Your task to perform on an android device: Open Android settings Image 0: 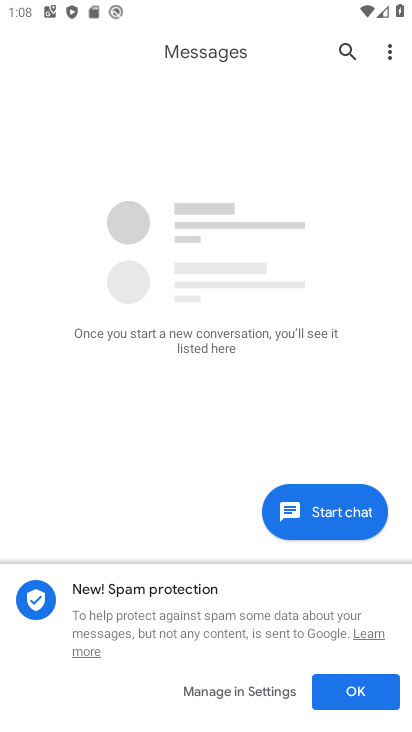
Step 0: press back button
Your task to perform on an android device: Open Android settings Image 1: 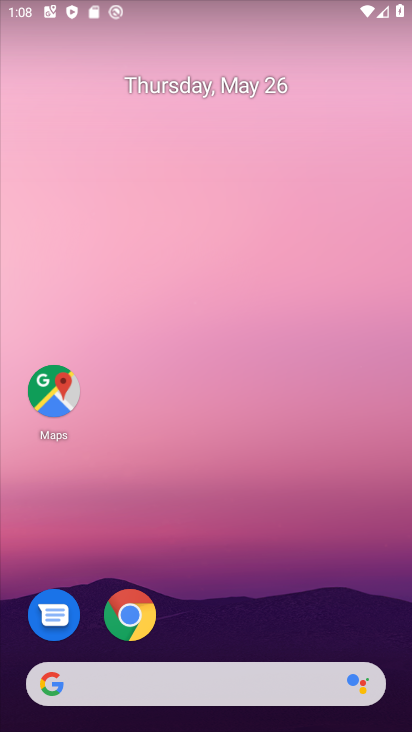
Step 1: drag from (97, 9) to (203, 5)
Your task to perform on an android device: Open Android settings Image 2: 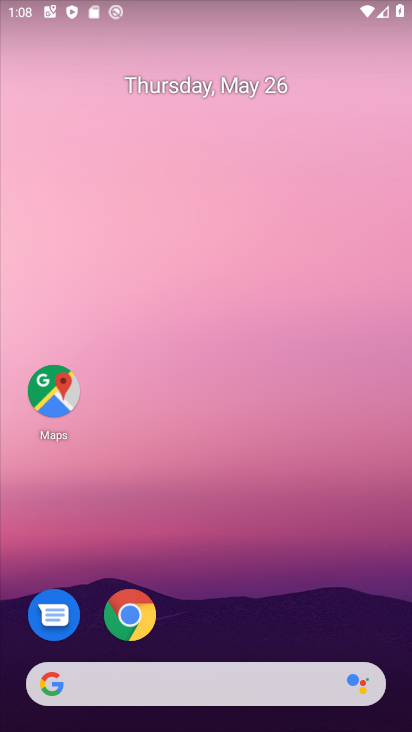
Step 2: drag from (221, 531) to (284, 106)
Your task to perform on an android device: Open Android settings Image 3: 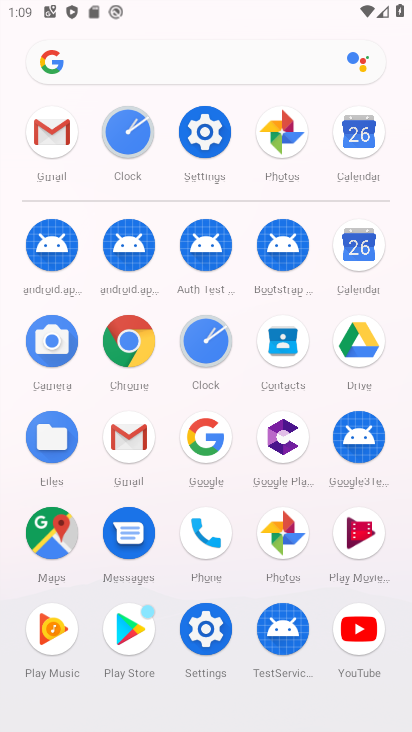
Step 3: click (197, 617)
Your task to perform on an android device: Open Android settings Image 4: 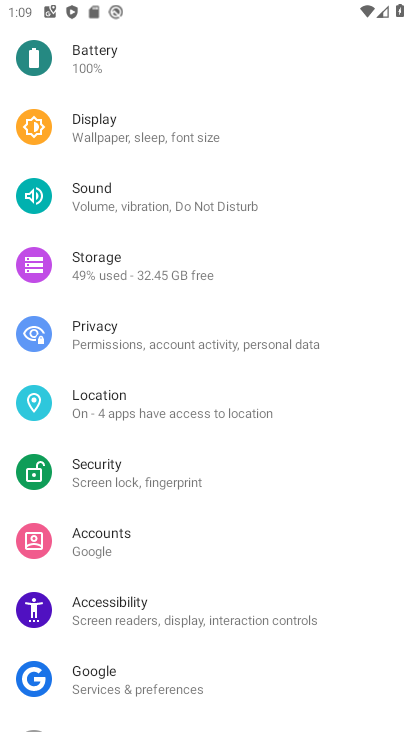
Step 4: drag from (114, 680) to (177, 74)
Your task to perform on an android device: Open Android settings Image 5: 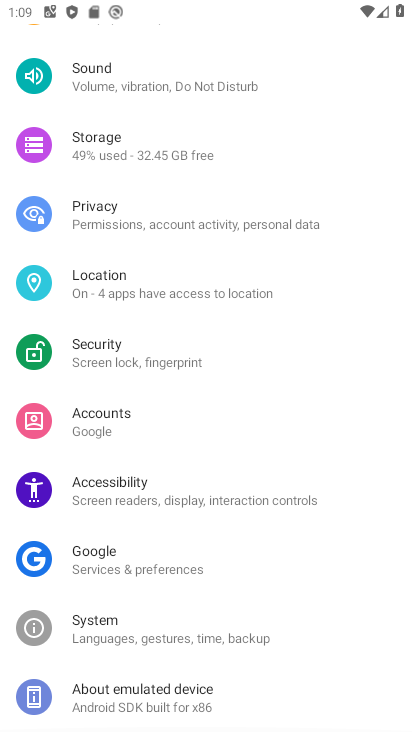
Step 5: drag from (115, 639) to (216, 152)
Your task to perform on an android device: Open Android settings Image 6: 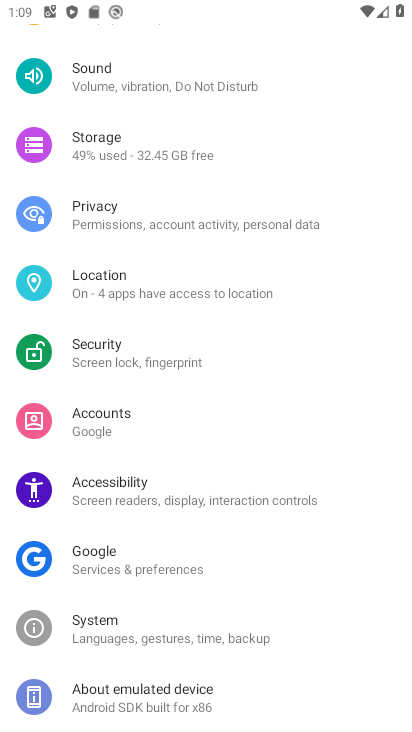
Step 6: drag from (134, 681) to (204, 179)
Your task to perform on an android device: Open Android settings Image 7: 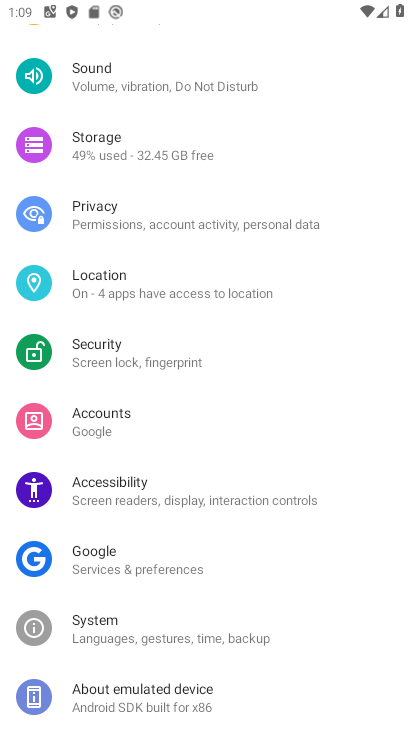
Step 7: click (147, 705)
Your task to perform on an android device: Open Android settings Image 8: 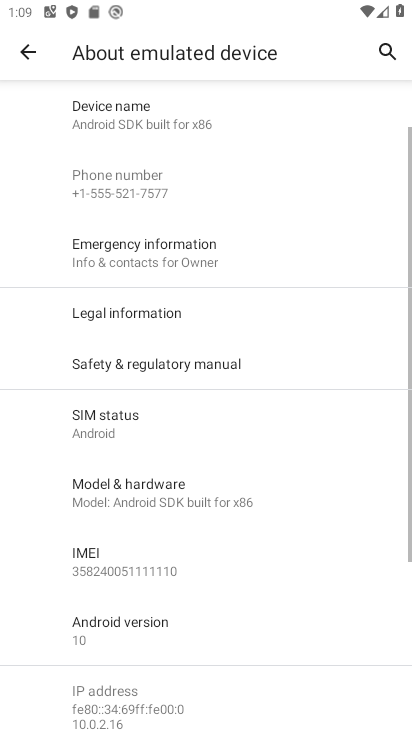
Step 8: click (120, 640)
Your task to perform on an android device: Open Android settings Image 9: 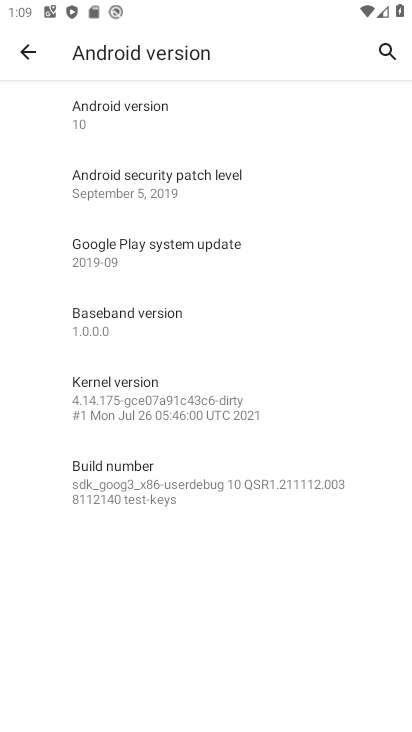
Step 9: task complete